Your task to perform on an android device: turn off translation in the chrome app Image 0: 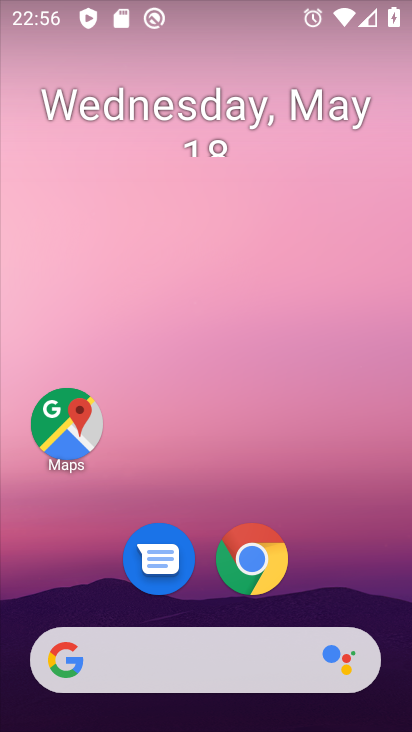
Step 0: click (248, 564)
Your task to perform on an android device: turn off translation in the chrome app Image 1: 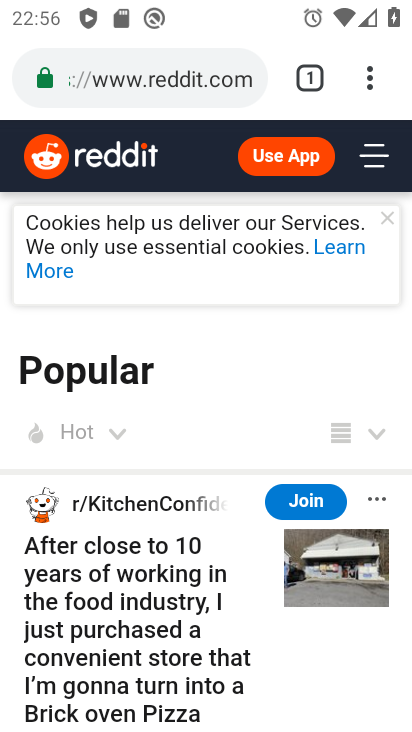
Step 1: click (358, 78)
Your task to perform on an android device: turn off translation in the chrome app Image 2: 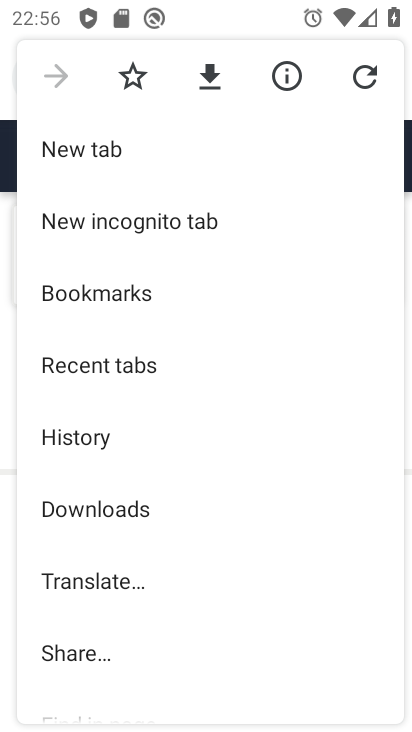
Step 2: drag from (91, 604) to (190, 332)
Your task to perform on an android device: turn off translation in the chrome app Image 3: 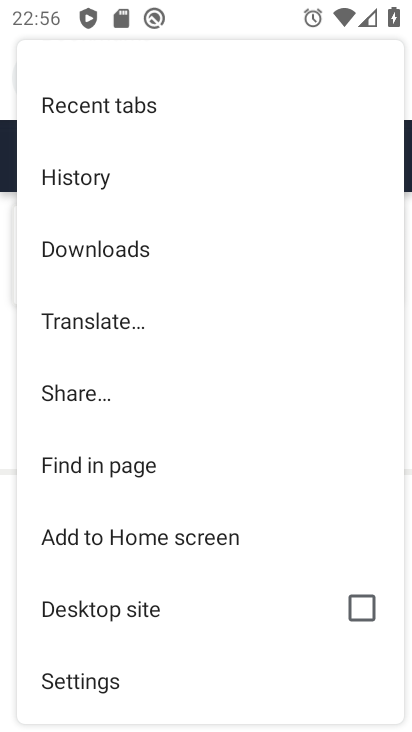
Step 3: click (67, 691)
Your task to perform on an android device: turn off translation in the chrome app Image 4: 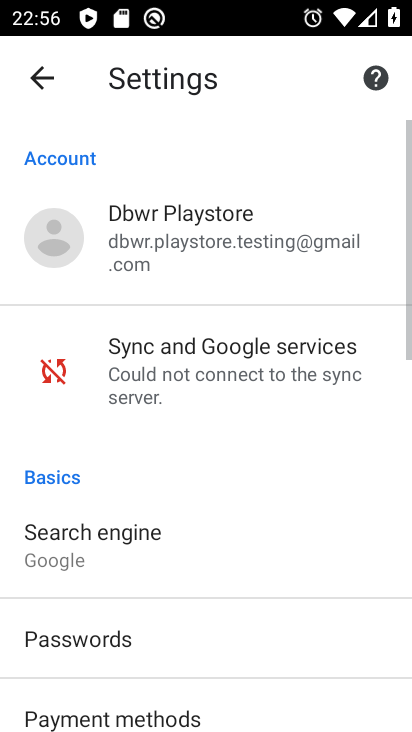
Step 4: drag from (113, 655) to (178, 338)
Your task to perform on an android device: turn off translation in the chrome app Image 5: 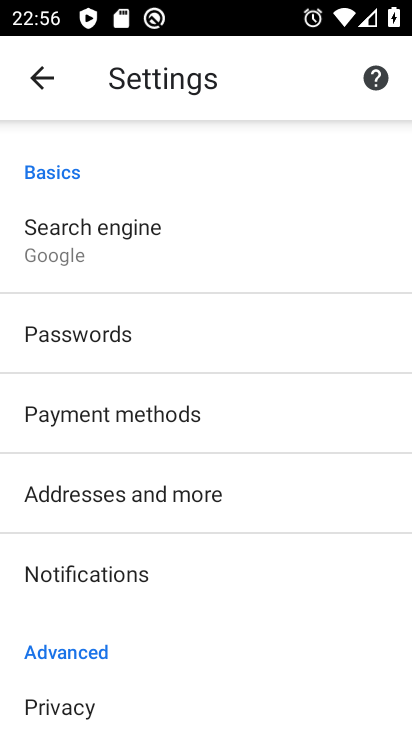
Step 5: drag from (155, 603) to (232, 322)
Your task to perform on an android device: turn off translation in the chrome app Image 6: 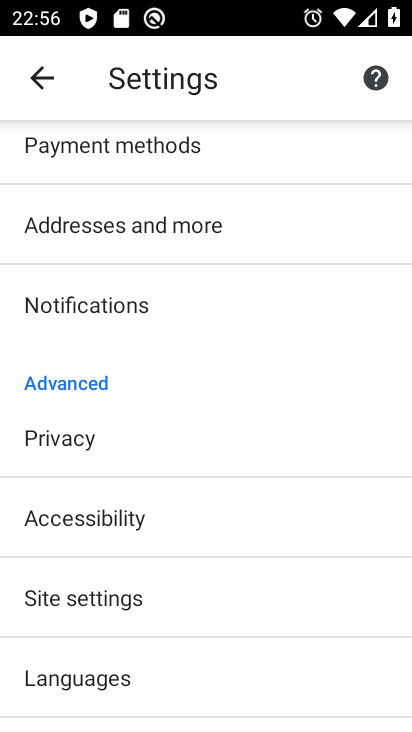
Step 6: click (81, 685)
Your task to perform on an android device: turn off translation in the chrome app Image 7: 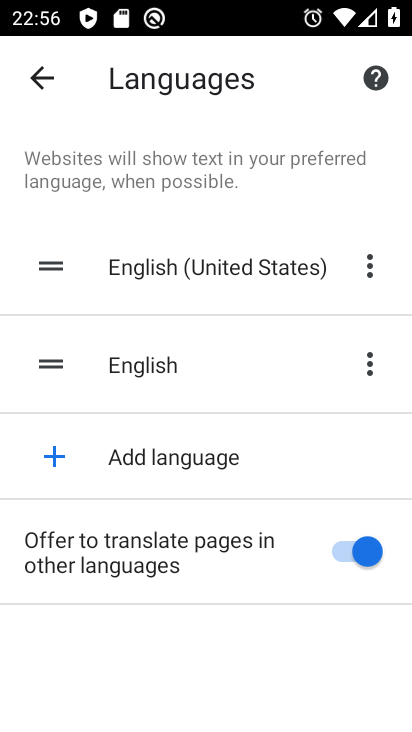
Step 7: task complete